Your task to perform on an android device: uninstall "Google Home" Image 0: 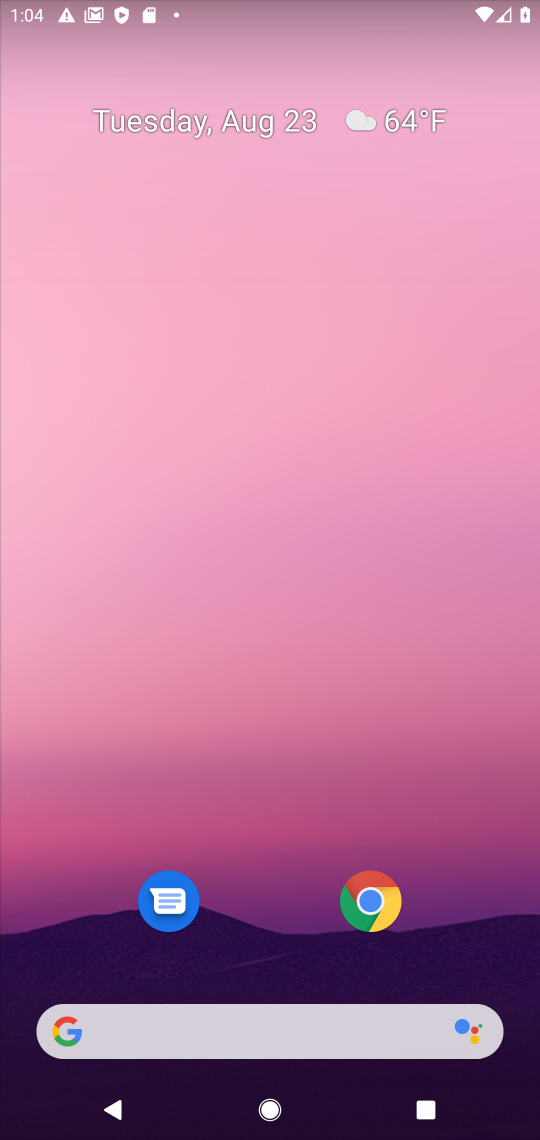
Step 0: drag from (265, 957) to (356, 94)
Your task to perform on an android device: uninstall "Google Home" Image 1: 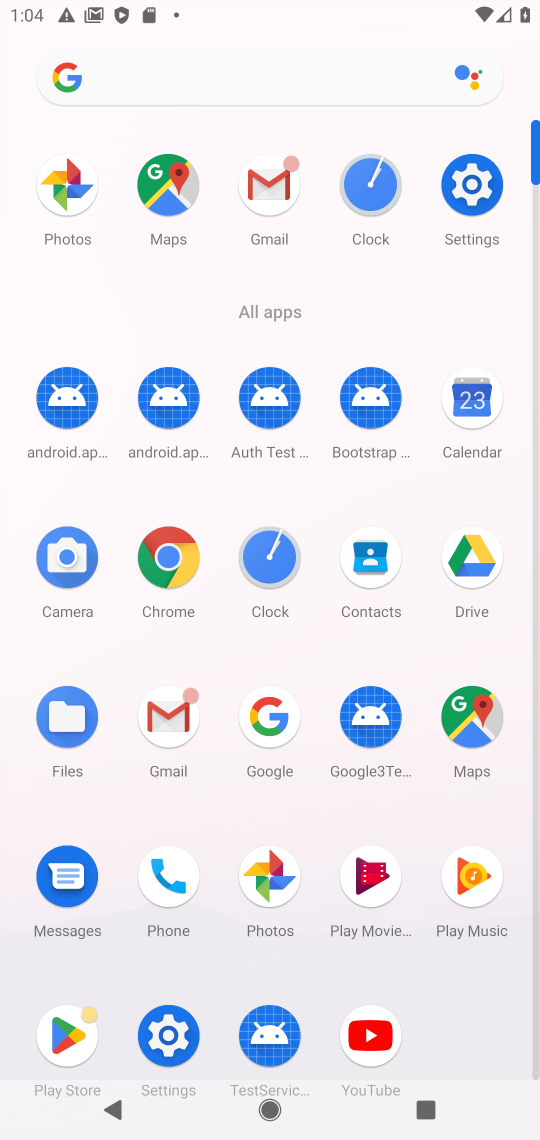
Step 1: click (68, 1028)
Your task to perform on an android device: uninstall "Google Home" Image 2: 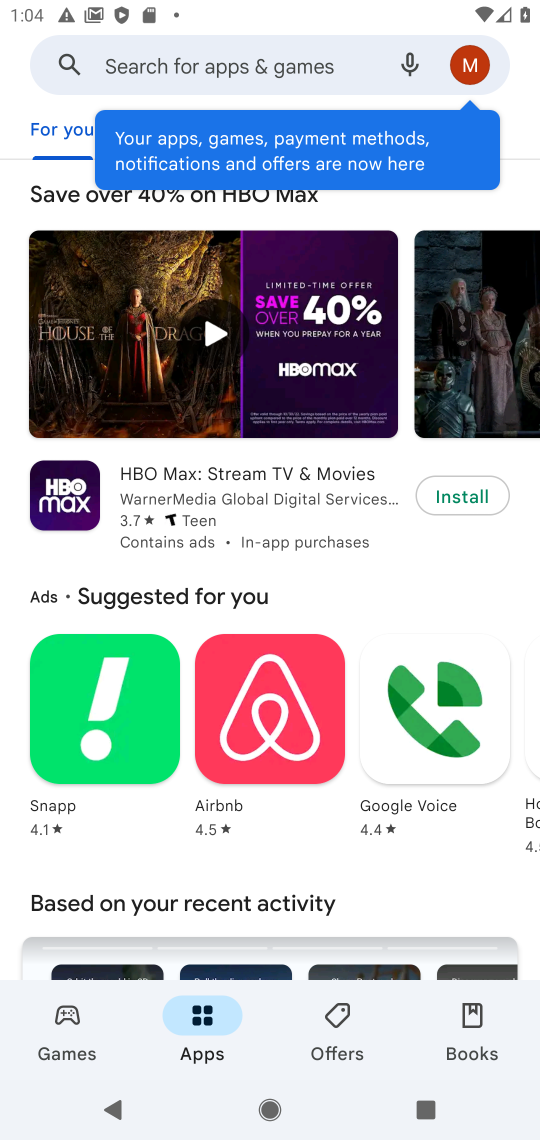
Step 2: click (221, 58)
Your task to perform on an android device: uninstall "Google Home" Image 3: 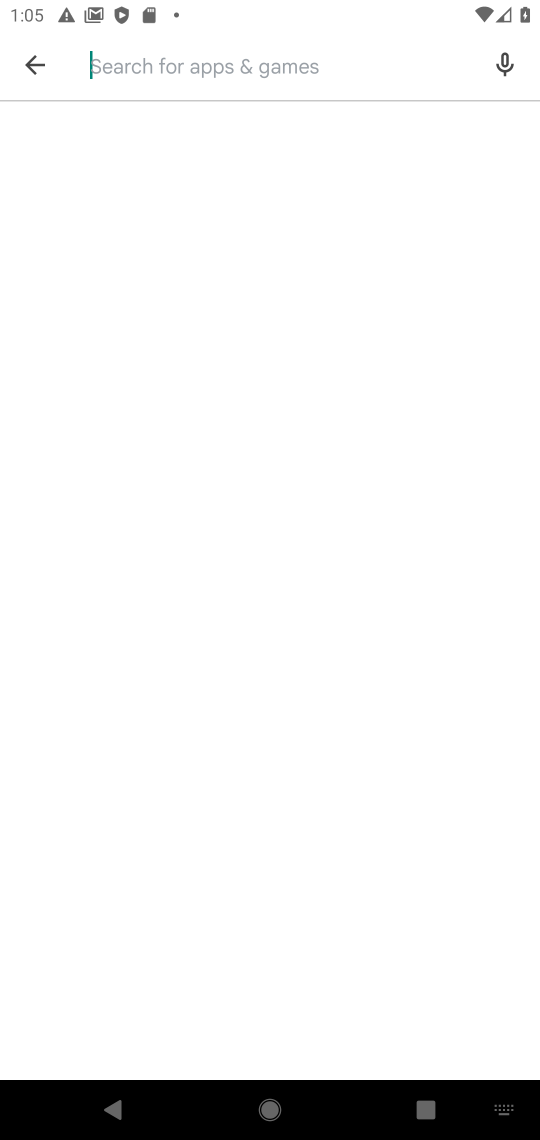
Step 3: type "Google Home"
Your task to perform on an android device: uninstall "Google Home" Image 4: 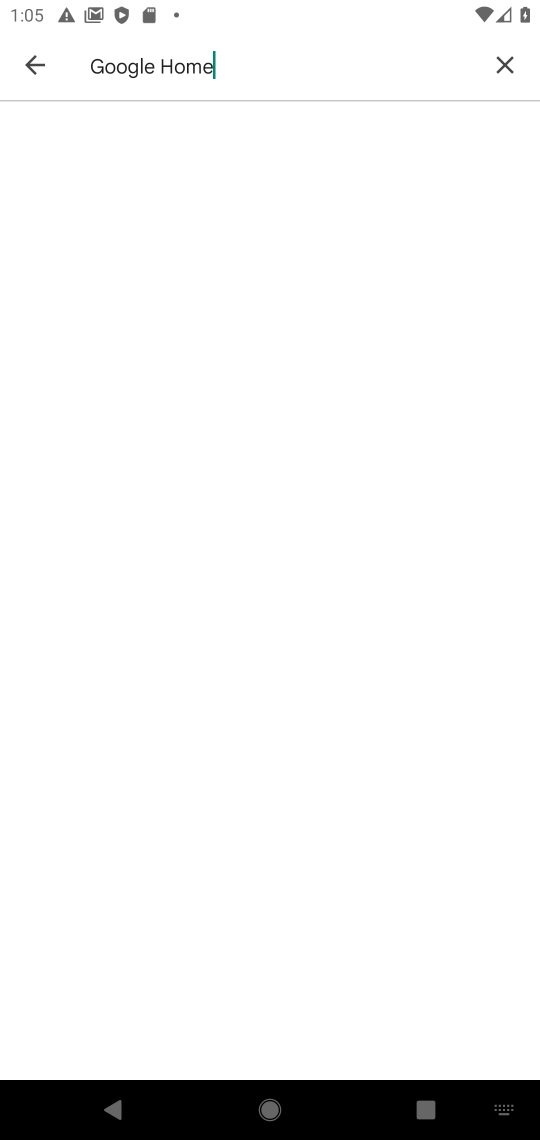
Step 4: type ""
Your task to perform on an android device: uninstall "Google Home" Image 5: 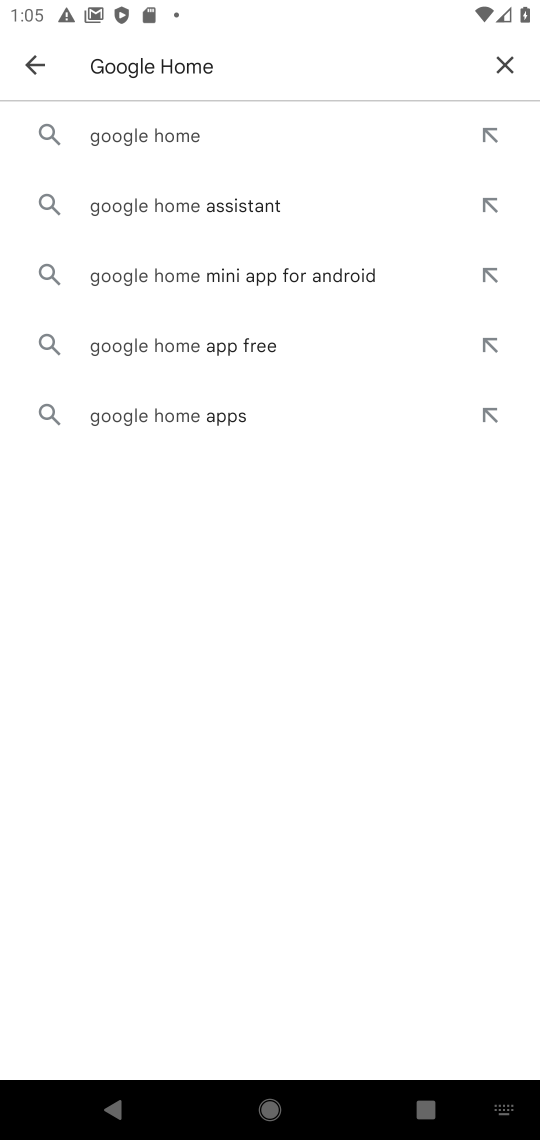
Step 5: click (207, 152)
Your task to perform on an android device: uninstall "Google Home" Image 6: 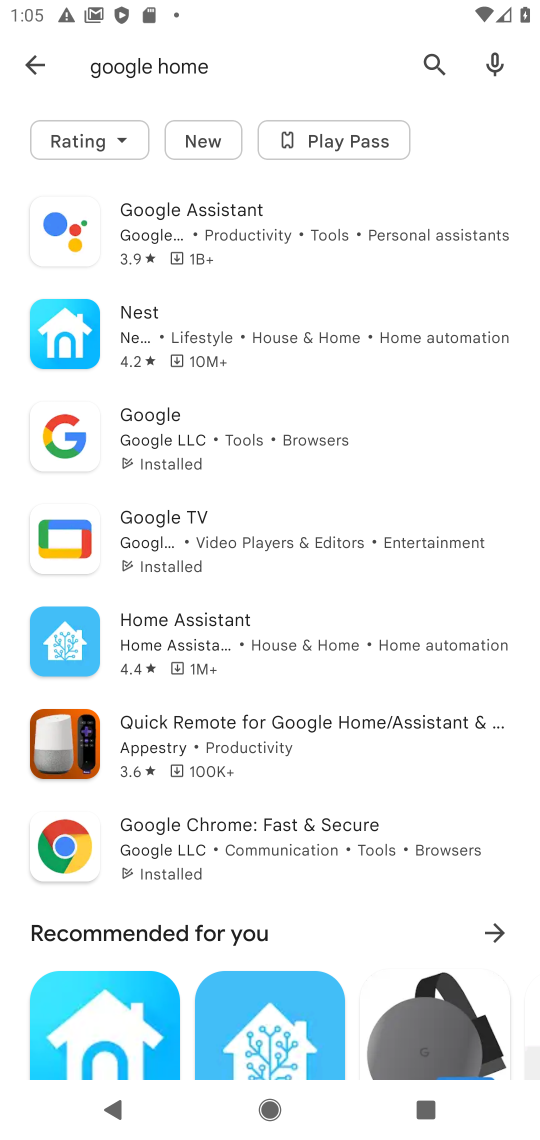
Step 6: task complete